Your task to perform on an android device: find photos in the google photos app Image 0: 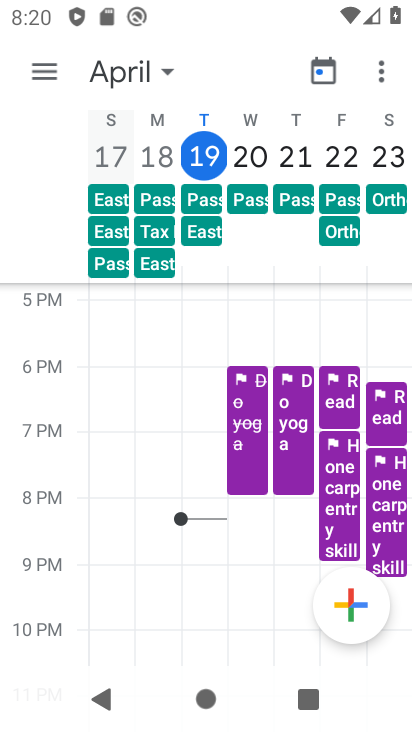
Step 0: press home button
Your task to perform on an android device: find photos in the google photos app Image 1: 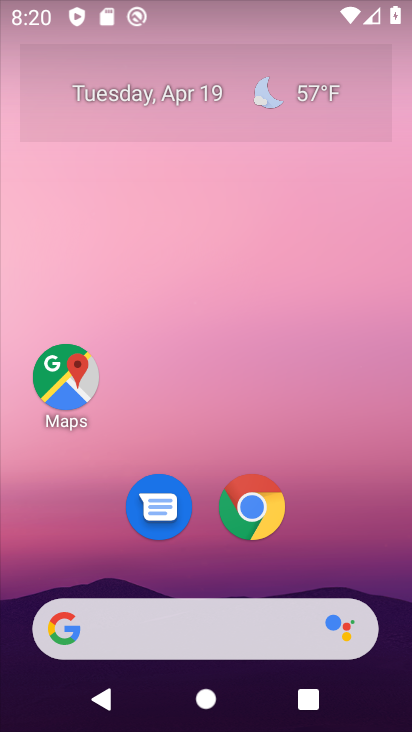
Step 1: drag from (331, 486) to (232, 13)
Your task to perform on an android device: find photos in the google photos app Image 2: 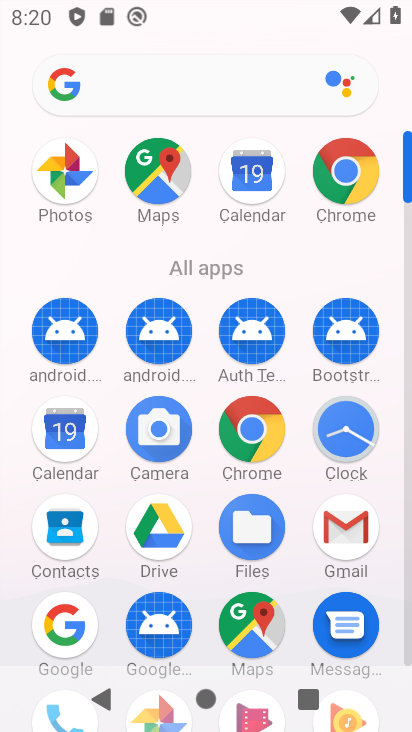
Step 2: click (76, 178)
Your task to perform on an android device: find photos in the google photos app Image 3: 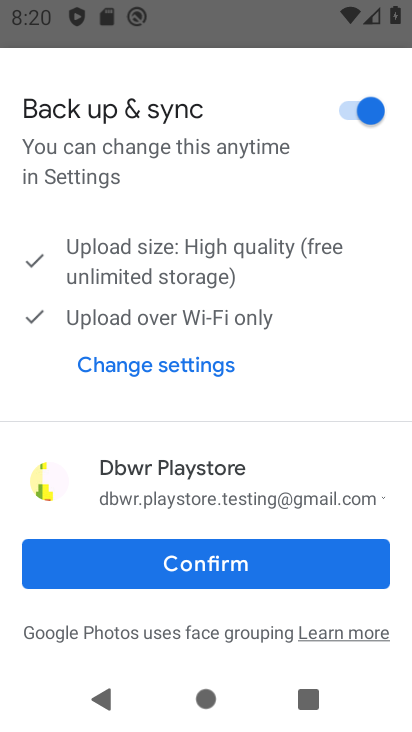
Step 3: click (194, 561)
Your task to perform on an android device: find photos in the google photos app Image 4: 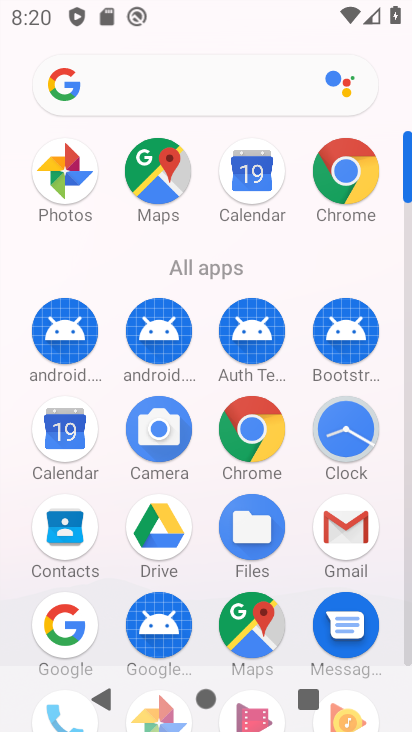
Step 4: click (72, 171)
Your task to perform on an android device: find photos in the google photos app Image 5: 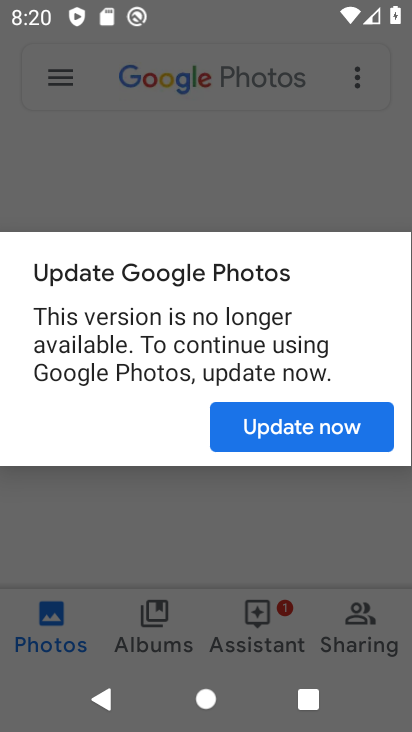
Step 5: click (273, 420)
Your task to perform on an android device: find photos in the google photos app Image 6: 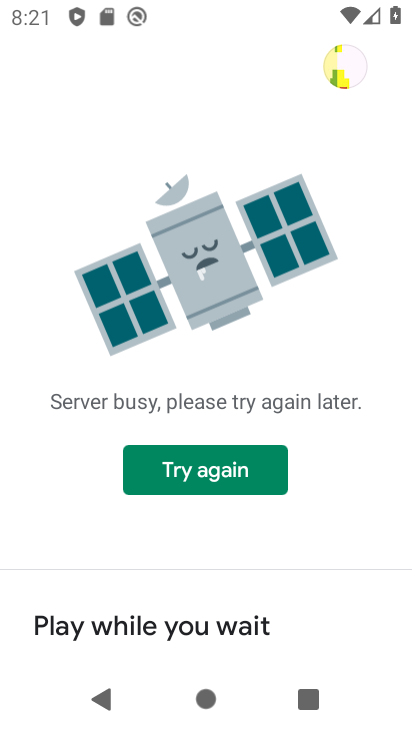
Step 6: click (230, 420)
Your task to perform on an android device: find photos in the google photos app Image 7: 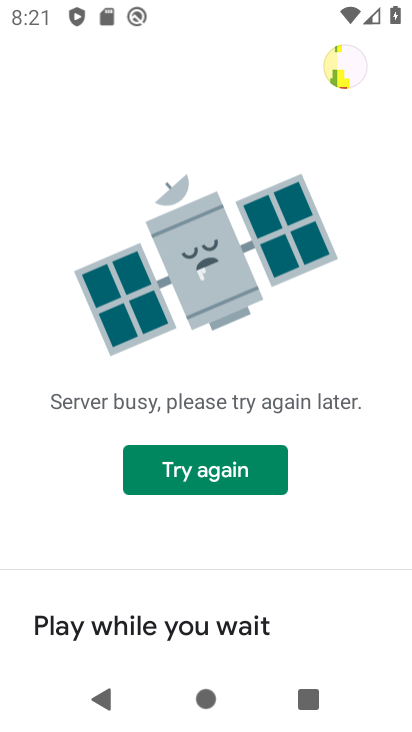
Step 7: task complete